Your task to perform on an android device: What's on my calendar today? Image 0: 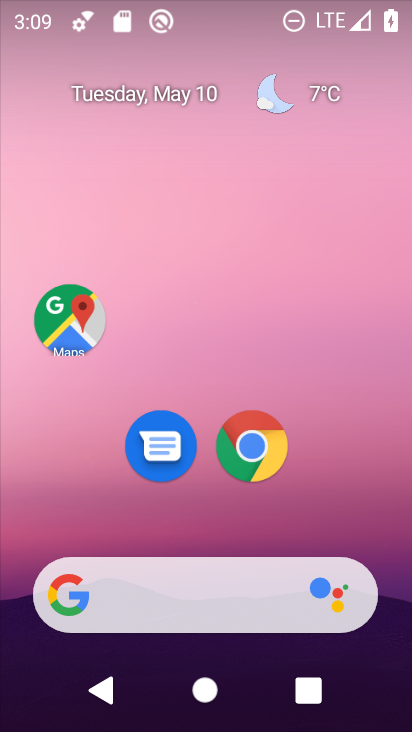
Step 0: drag from (273, 482) to (227, 58)
Your task to perform on an android device: What's on my calendar today? Image 1: 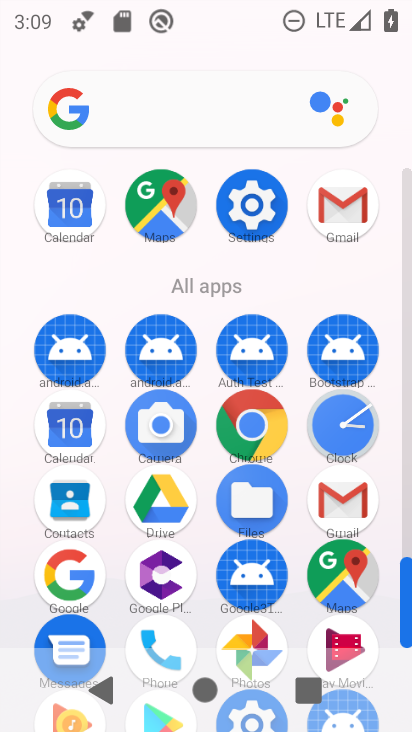
Step 1: click (69, 431)
Your task to perform on an android device: What's on my calendar today? Image 2: 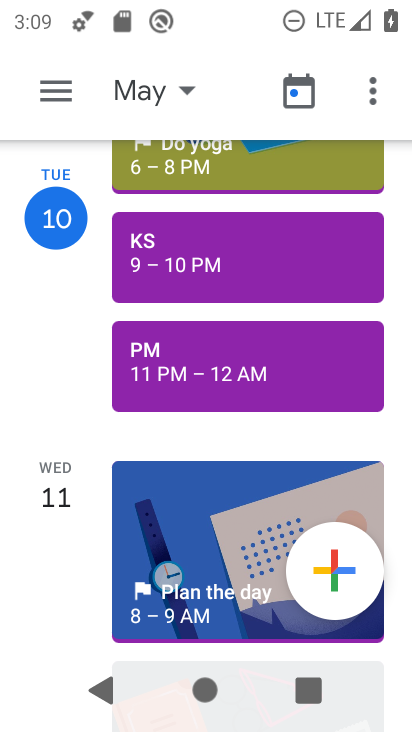
Step 2: drag from (68, 281) to (54, 591)
Your task to perform on an android device: What's on my calendar today? Image 3: 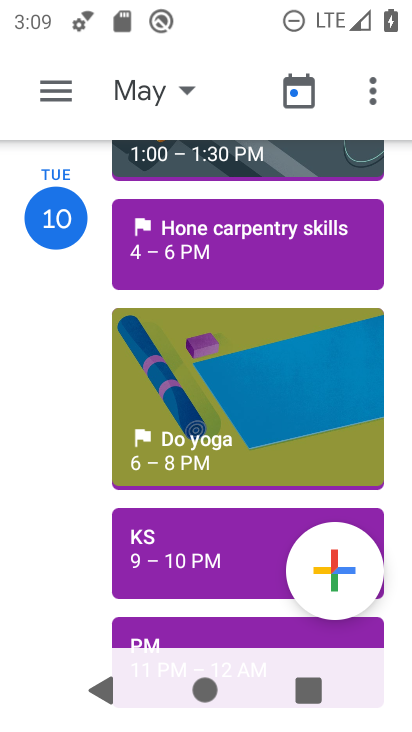
Step 3: click (73, 695)
Your task to perform on an android device: What's on my calendar today? Image 4: 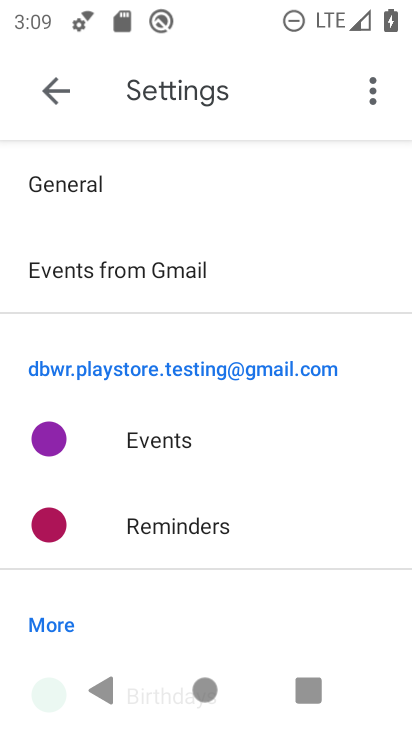
Step 4: task complete